Your task to perform on an android device: turn on translation in the chrome app Image 0: 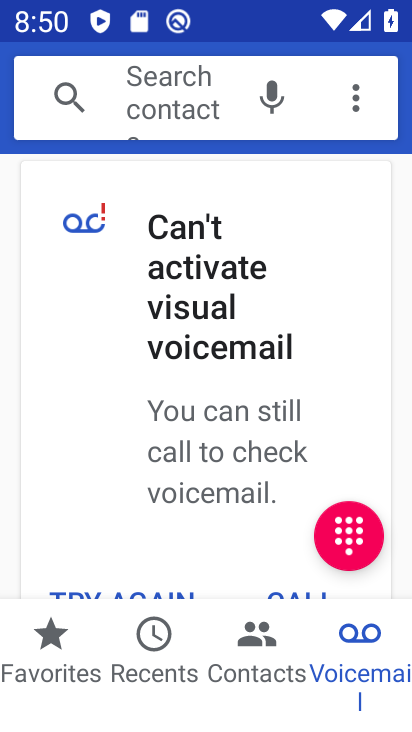
Step 0: press home button
Your task to perform on an android device: turn on translation in the chrome app Image 1: 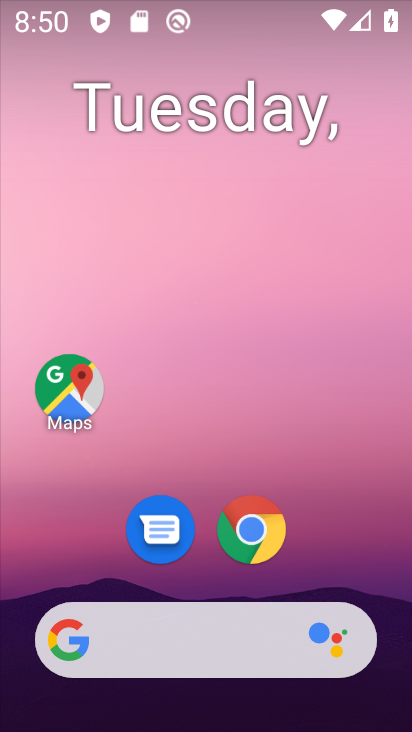
Step 1: click (259, 529)
Your task to perform on an android device: turn on translation in the chrome app Image 2: 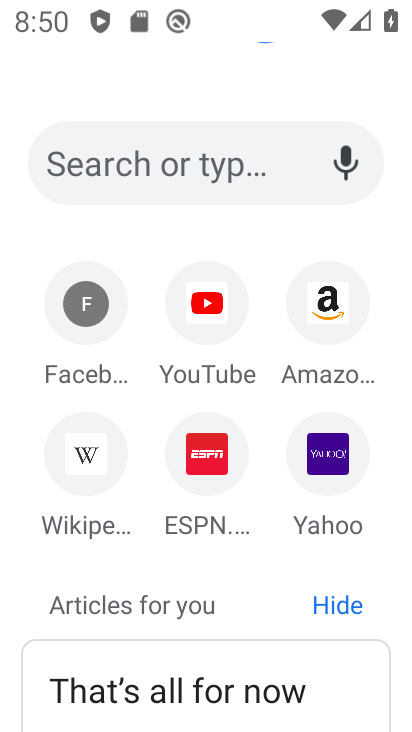
Step 2: drag from (365, 215) to (356, 474)
Your task to perform on an android device: turn on translation in the chrome app Image 3: 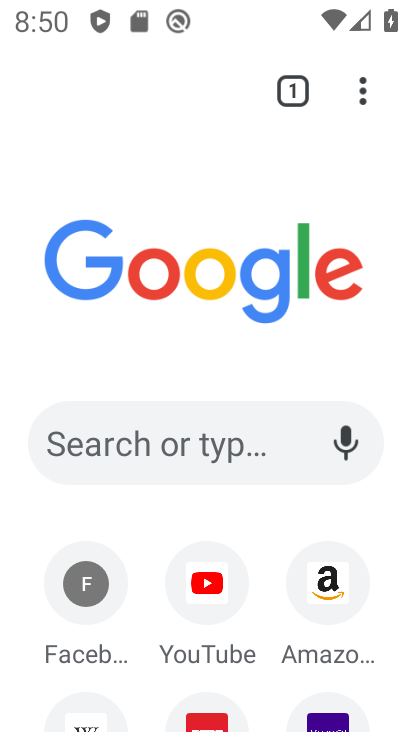
Step 3: drag from (379, 239) to (372, 343)
Your task to perform on an android device: turn on translation in the chrome app Image 4: 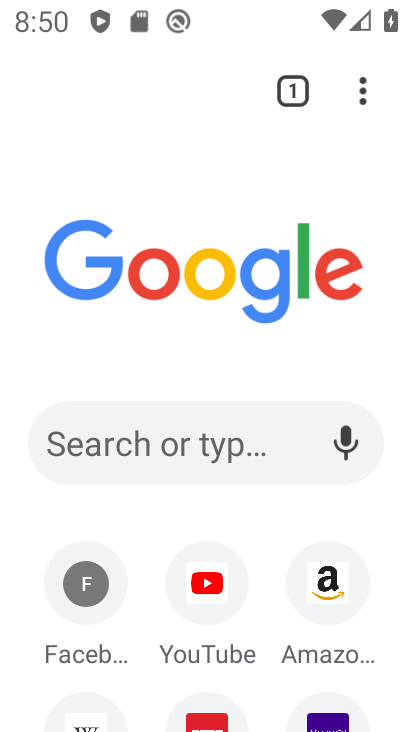
Step 4: click (362, 96)
Your task to perform on an android device: turn on translation in the chrome app Image 5: 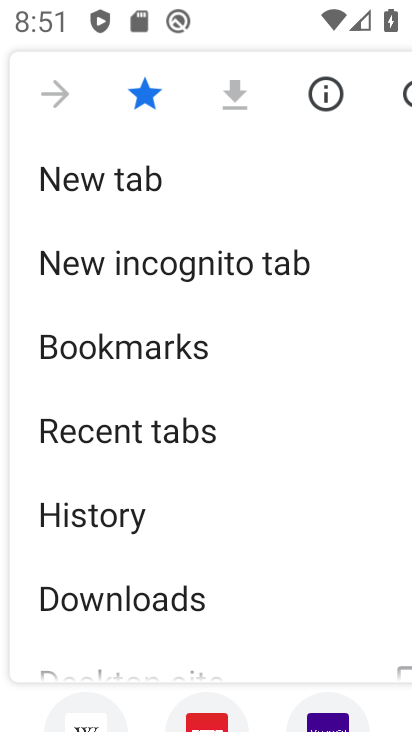
Step 5: drag from (284, 565) to (329, 304)
Your task to perform on an android device: turn on translation in the chrome app Image 6: 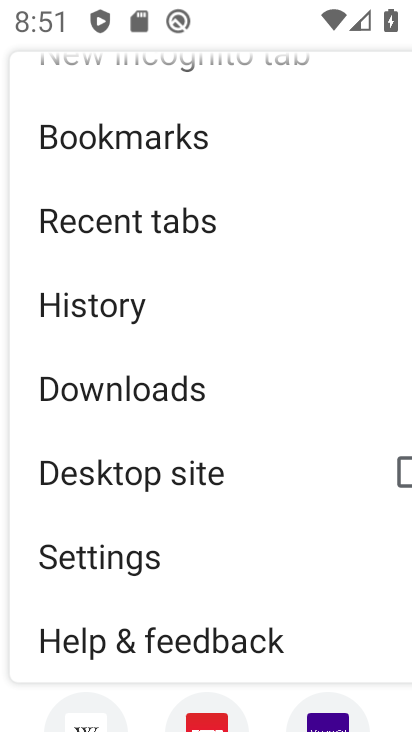
Step 6: click (105, 557)
Your task to perform on an android device: turn on translation in the chrome app Image 7: 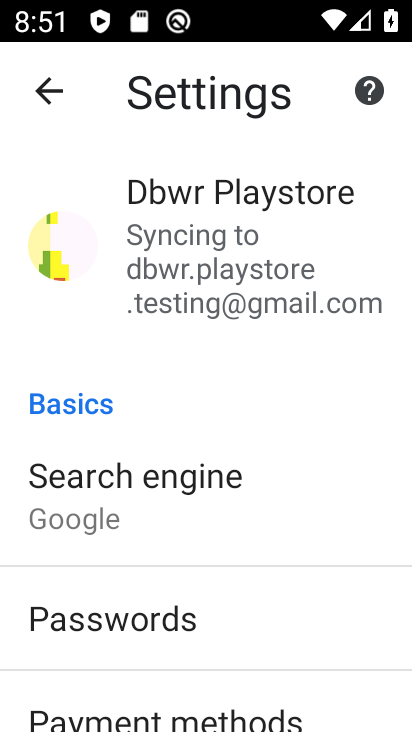
Step 7: drag from (272, 605) to (279, 334)
Your task to perform on an android device: turn on translation in the chrome app Image 8: 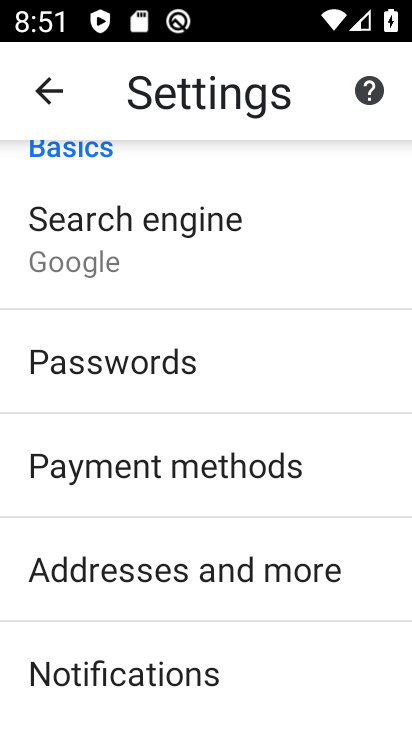
Step 8: drag from (299, 551) to (313, 261)
Your task to perform on an android device: turn on translation in the chrome app Image 9: 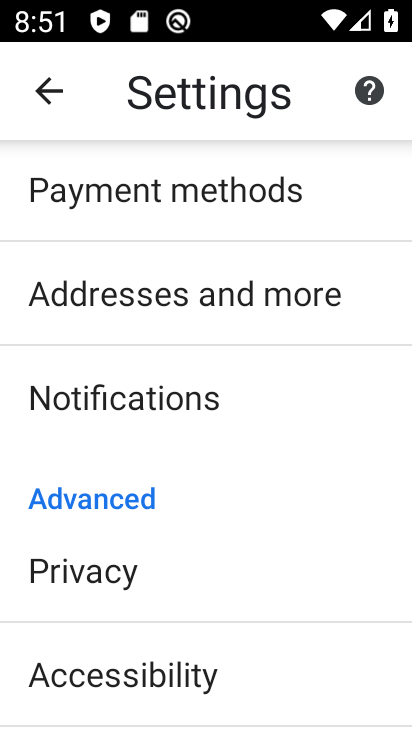
Step 9: drag from (311, 604) to (288, 238)
Your task to perform on an android device: turn on translation in the chrome app Image 10: 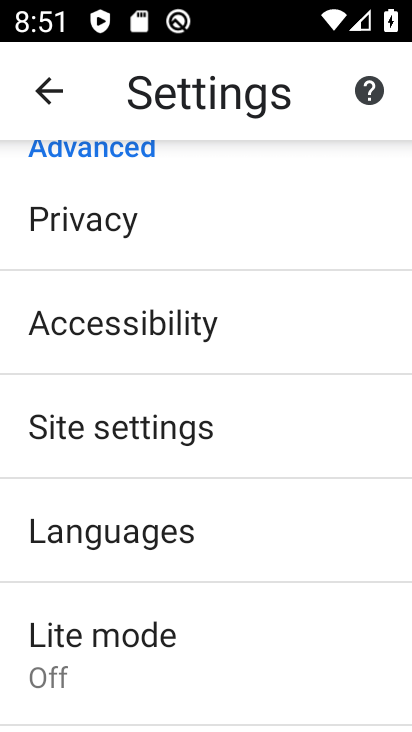
Step 10: click (96, 532)
Your task to perform on an android device: turn on translation in the chrome app Image 11: 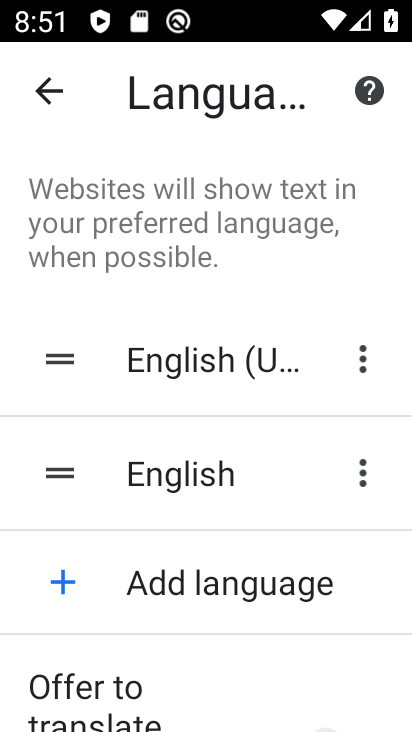
Step 11: drag from (204, 629) to (212, 253)
Your task to perform on an android device: turn on translation in the chrome app Image 12: 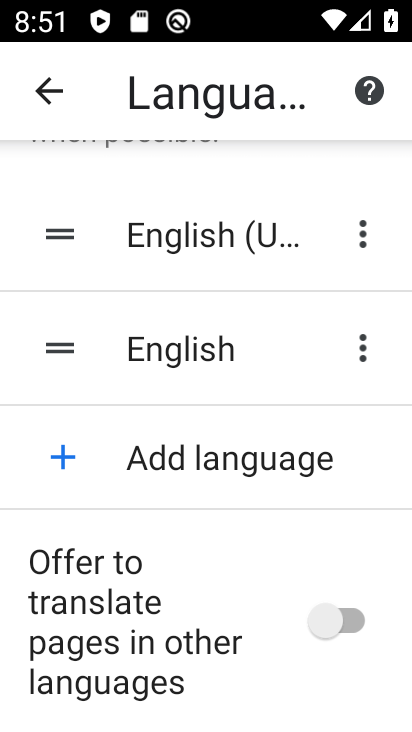
Step 12: click (350, 618)
Your task to perform on an android device: turn on translation in the chrome app Image 13: 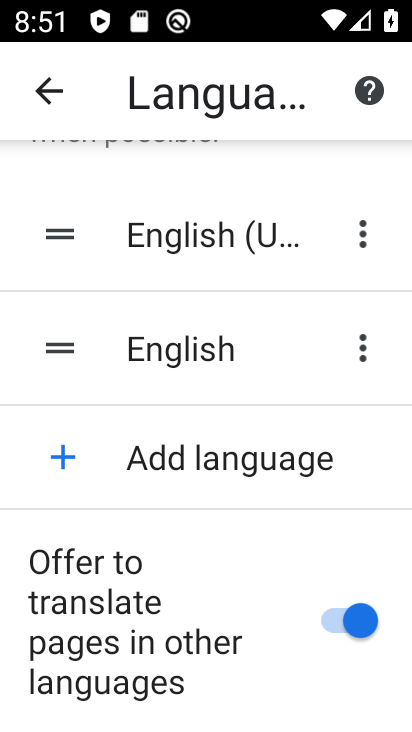
Step 13: task complete